Your task to perform on an android device: see tabs open on other devices in the chrome app Image 0: 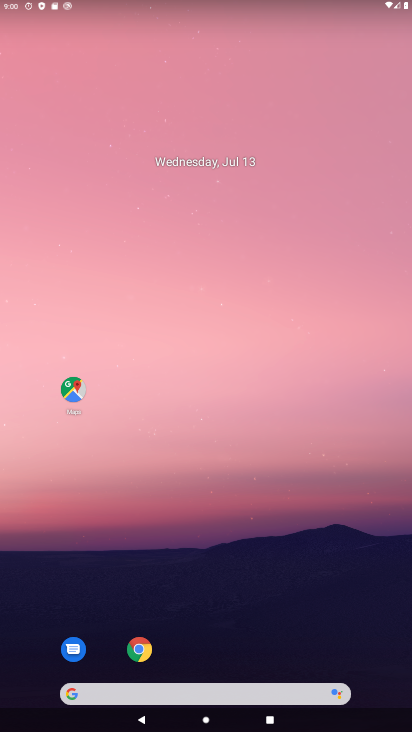
Step 0: drag from (228, 706) to (252, 27)
Your task to perform on an android device: see tabs open on other devices in the chrome app Image 1: 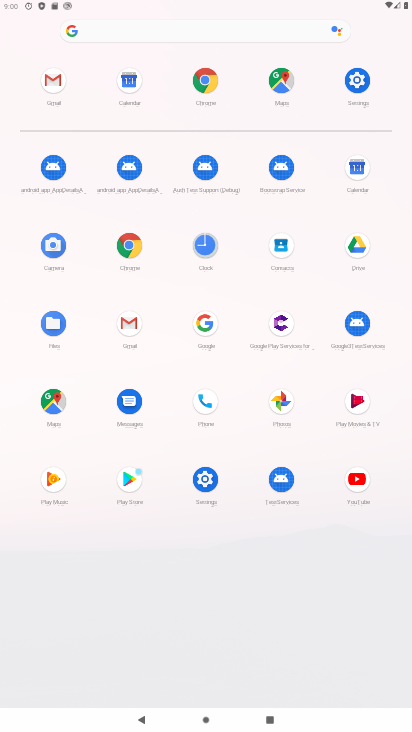
Step 1: click (126, 246)
Your task to perform on an android device: see tabs open on other devices in the chrome app Image 2: 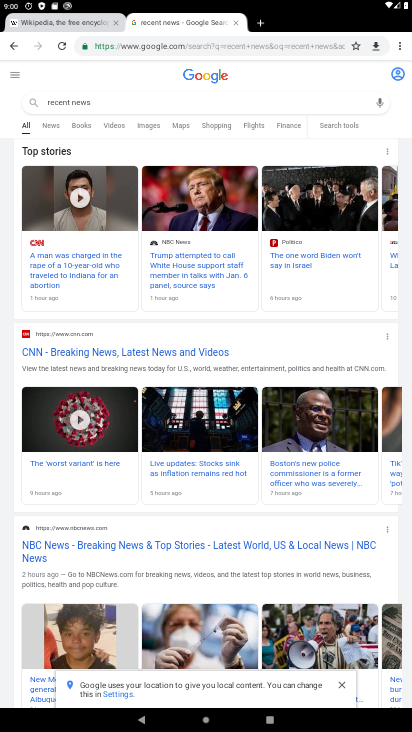
Step 2: task complete